Your task to perform on an android device: Do I have any events this weekend? Image 0: 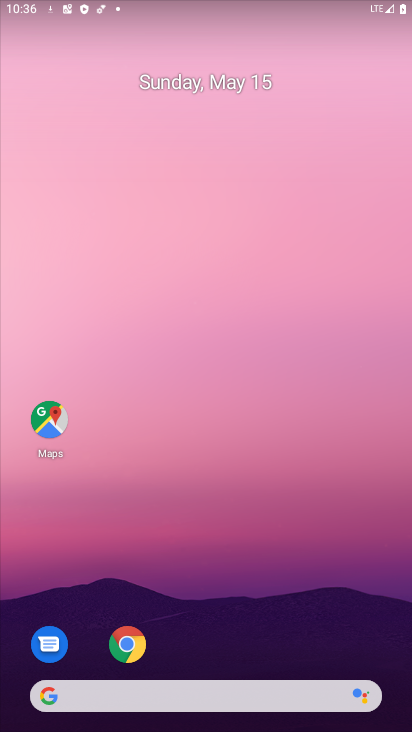
Step 0: drag from (227, 712) to (232, 277)
Your task to perform on an android device: Do I have any events this weekend? Image 1: 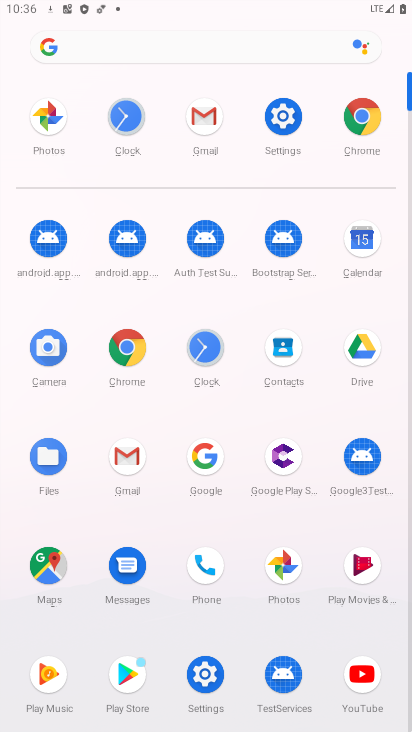
Step 1: click (350, 245)
Your task to perform on an android device: Do I have any events this weekend? Image 2: 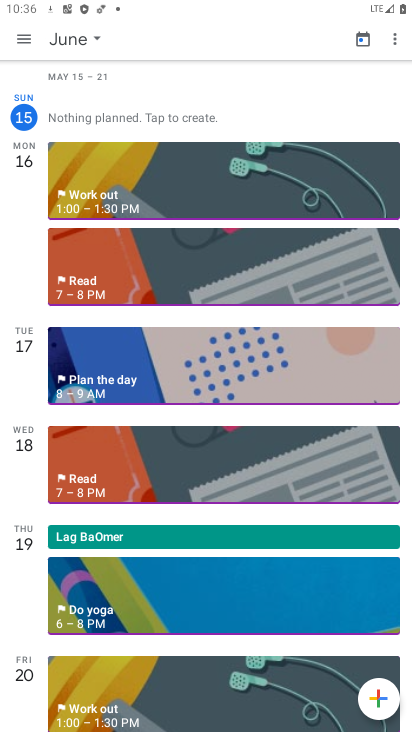
Step 2: click (17, 39)
Your task to perform on an android device: Do I have any events this weekend? Image 3: 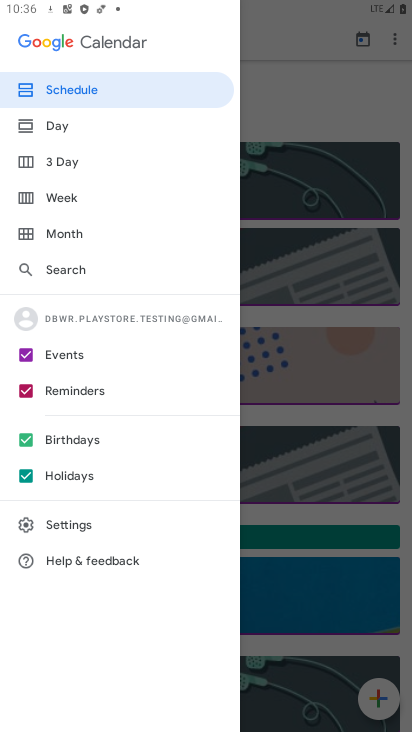
Step 3: click (89, 227)
Your task to perform on an android device: Do I have any events this weekend? Image 4: 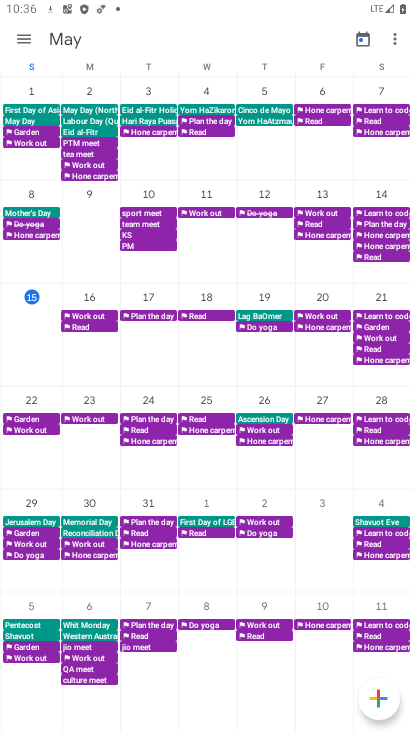
Step 4: click (105, 372)
Your task to perform on an android device: Do I have any events this weekend? Image 5: 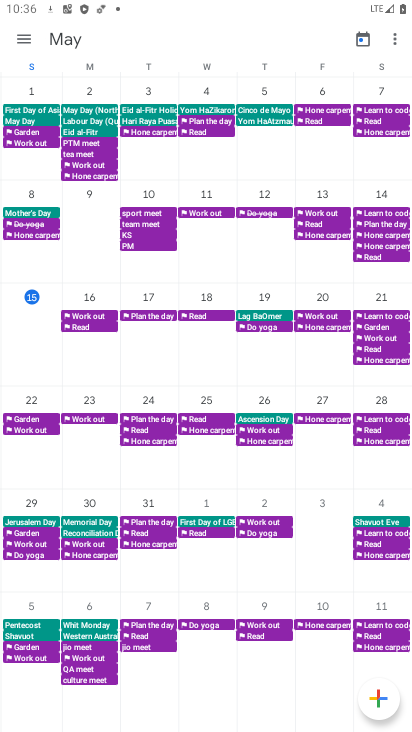
Step 5: click (20, 49)
Your task to perform on an android device: Do I have any events this weekend? Image 6: 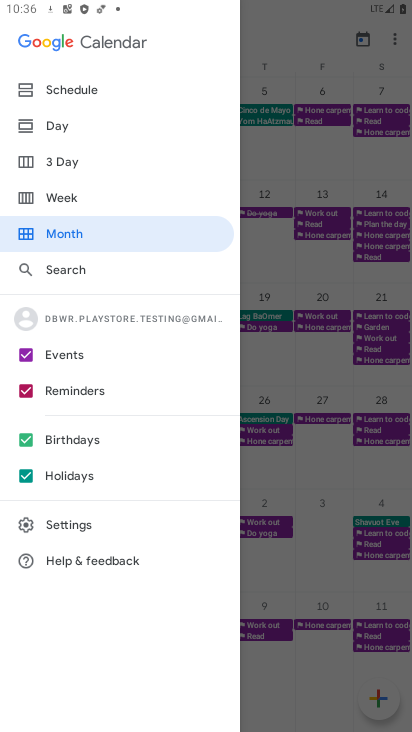
Step 6: click (74, 204)
Your task to perform on an android device: Do I have any events this weekend? Image 7: 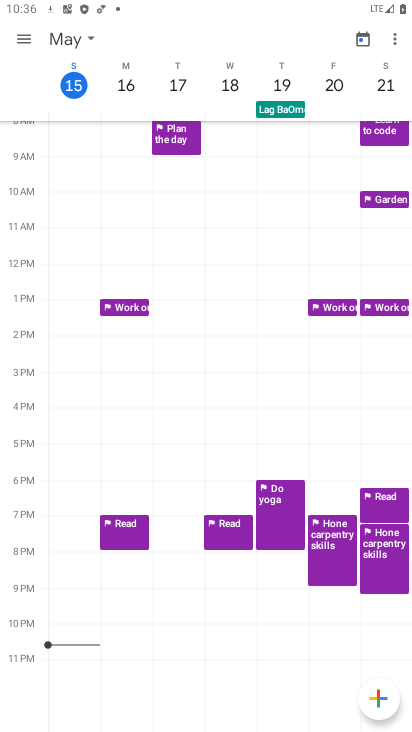
Step 7: task complete